Your task to perform on an android device: Open settings Image 0: 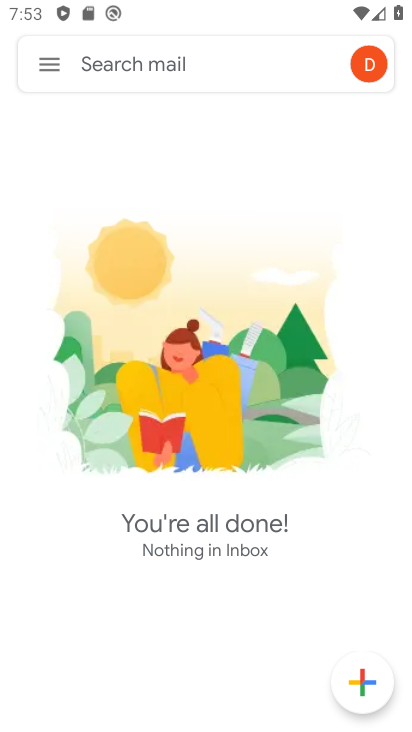
Step 0: press home button
Your task to perform on an android device: Open settings Image 1: 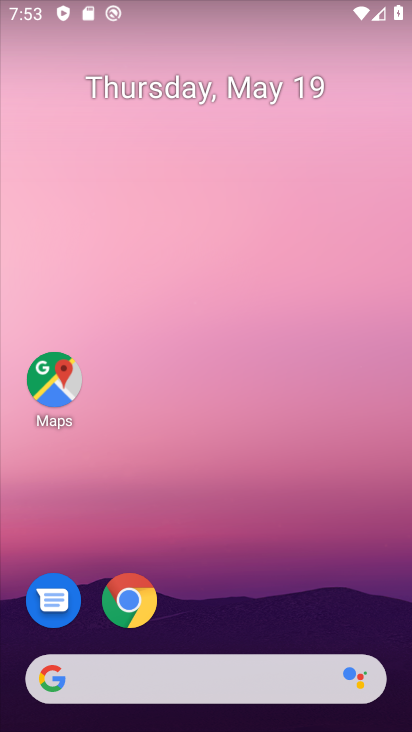
Step 1: drag from (223, 633) to (222, 32)
Your task to perform on an android device: Open settings Image 2: 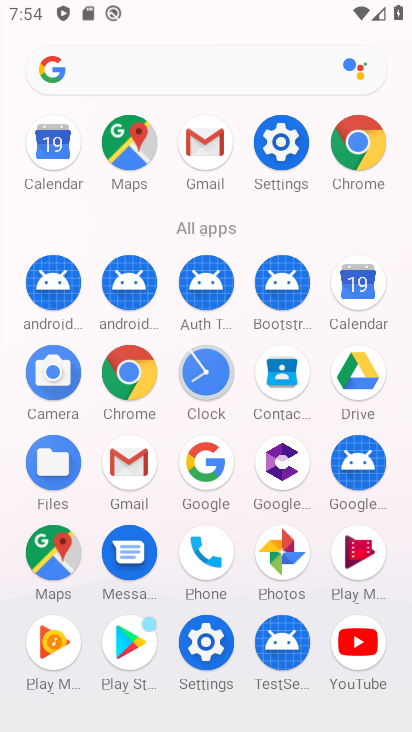
Step 2: click (278, 146)
Your task to perform on an android device: Open settings Image 3: 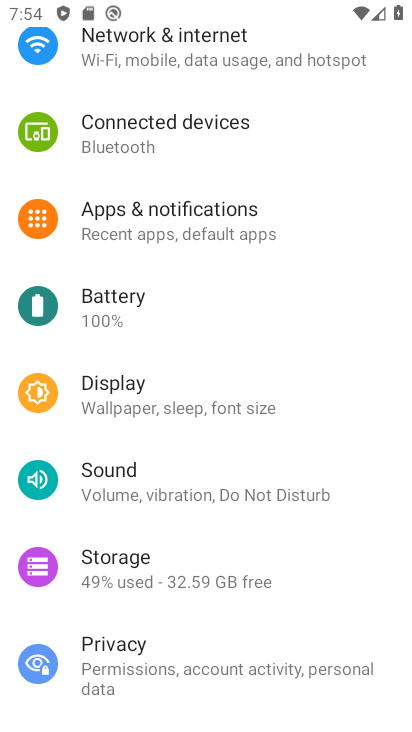
Step 3: task complete